Your task to perform on an android device: change the clock display to analog Image 0: 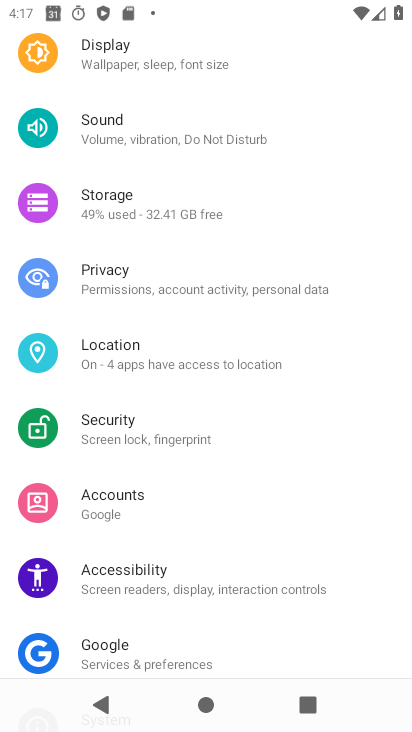
Step 0: press home button
Your task to perform on an android device: change the clock display to analog Image 1: 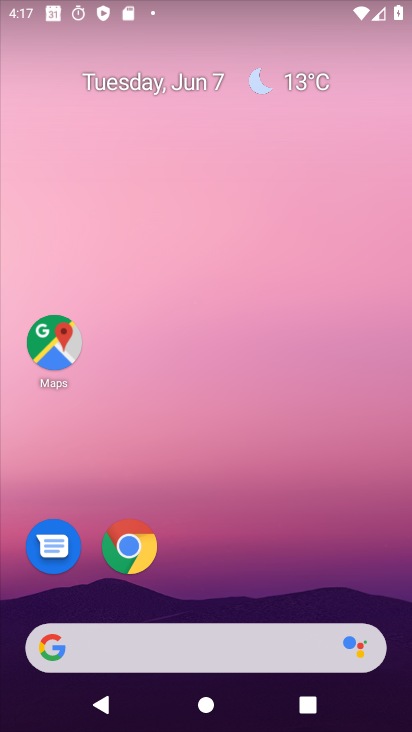
Step 1: drag from (113, 580) to (305, 26)
Your task to perform on an android device: change the clock display to analog Image 2: 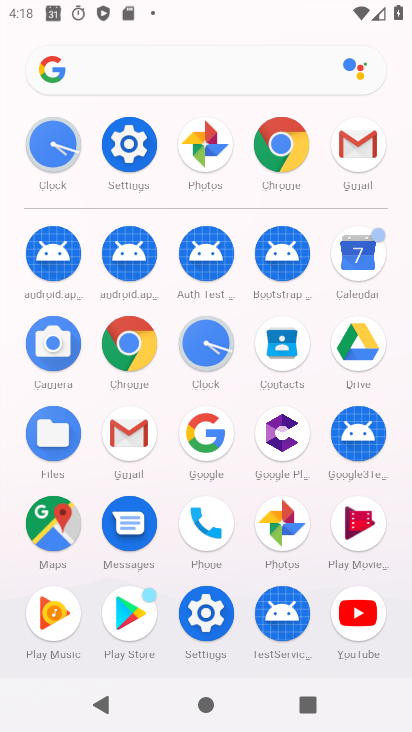
Step 2: click (129, 135)
Your task to perform on an android device: change the clock display to analog Image 3: 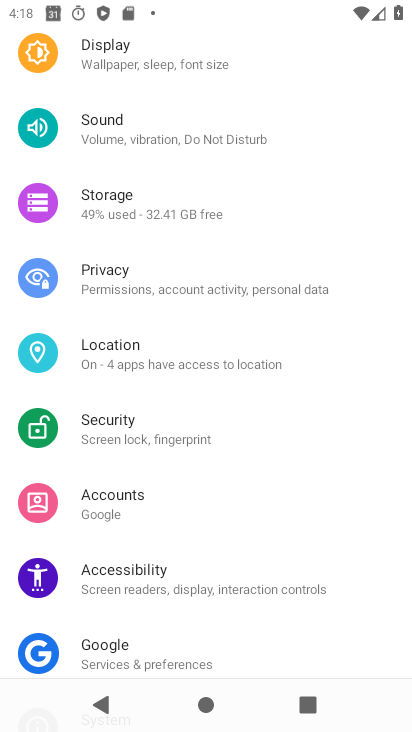
Step 3: press home button
Your task to perform on an android device: change the clock display to analog Image 4: 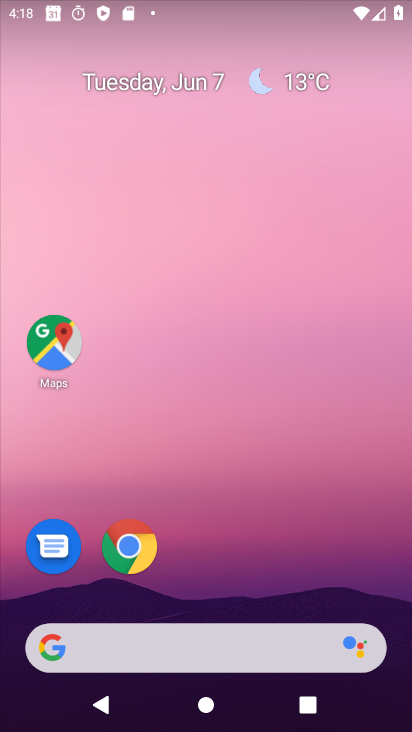
Step 4: drag from (176, 607) to (235, 90)
Your task to perform on an android device: change the clock display to analog Image 5: 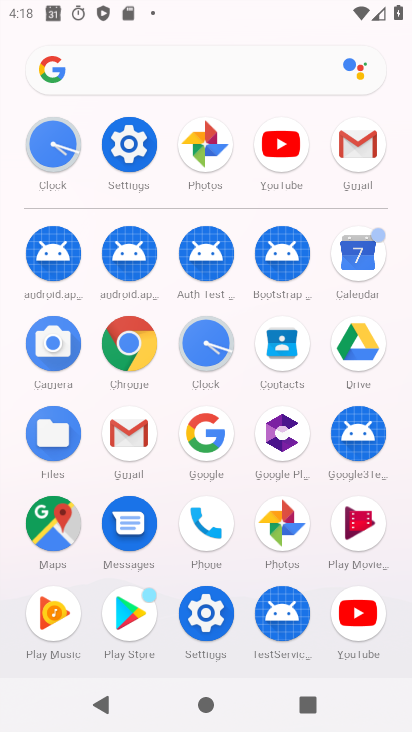
Step 5: click (202, 337)
Your task to perform on an android device: change the clock display to analog Image 6: 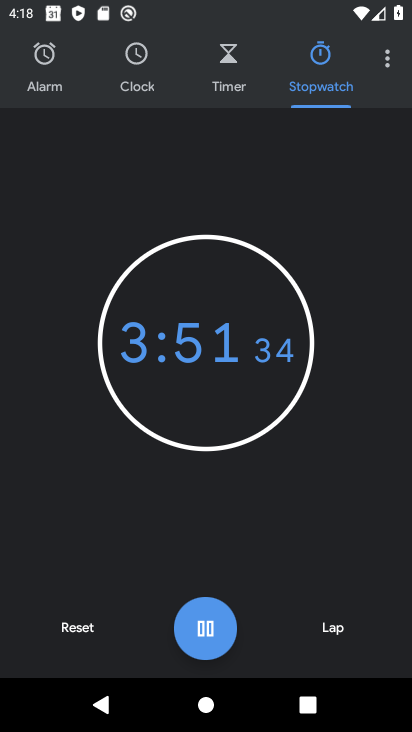
Step 6: click (387, 52)
Your task to perform on an android device: change the clock display to analog Image 7: 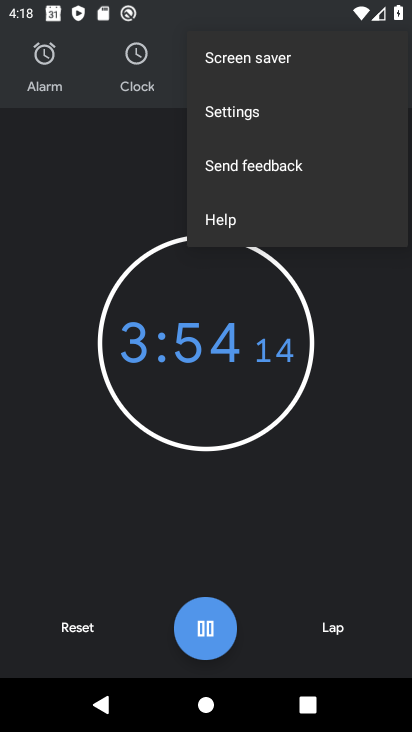
Step 7: click (269, 123)
Your task to perform on an android device: change the clock display to analog Image 8: 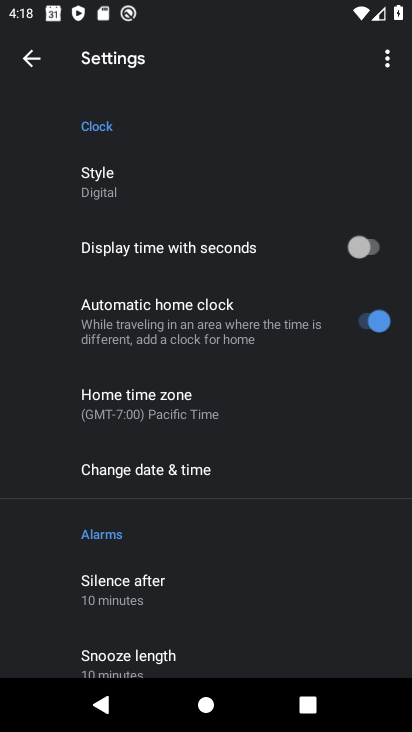
Step 8: click (136, 198)
Your task to perform on an android device: change the clock display to analog Image 9: 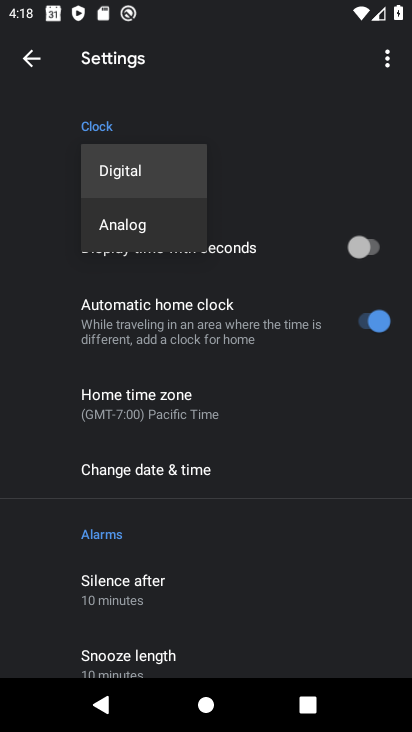
Step 9: click (136, 222)
Your task to perform on an android device: change the clock display to analog Image 10: 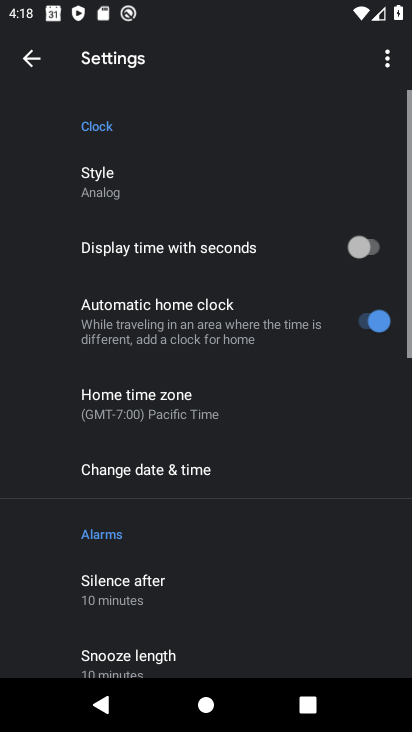
Step 10: task complete